Your task to perform on an android device: Go to ESPN.com Image 0: 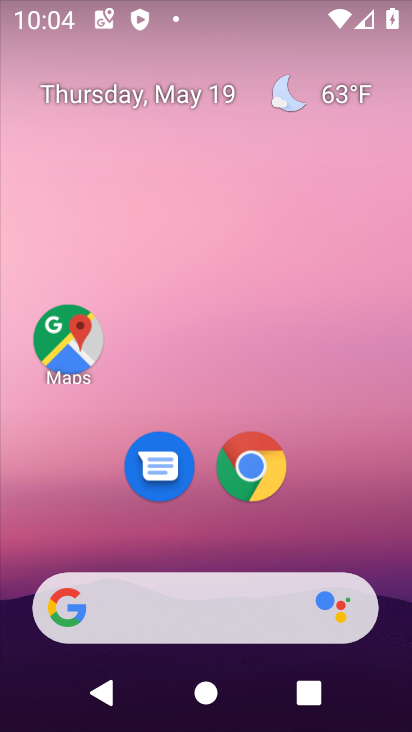
Step 0: drag from (394, 609) to (316, 49)
Your task to perform on an android device: Go to ESPN.com Image 1: 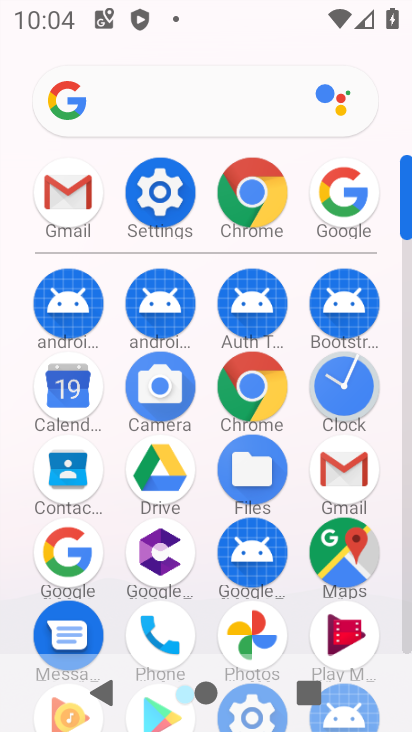
Step 1: click (56, 539)
Your task to perform on an android device: Go to ESPN.com Image 2: 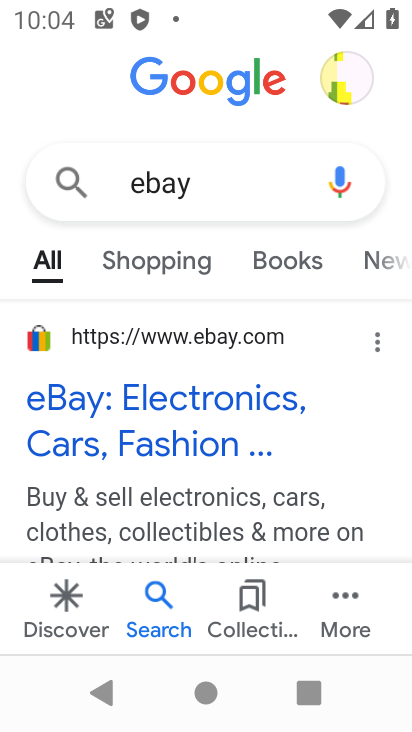
Step 2: press back button
Your task to perform on an android device: Go to ESPN.com Image 3: 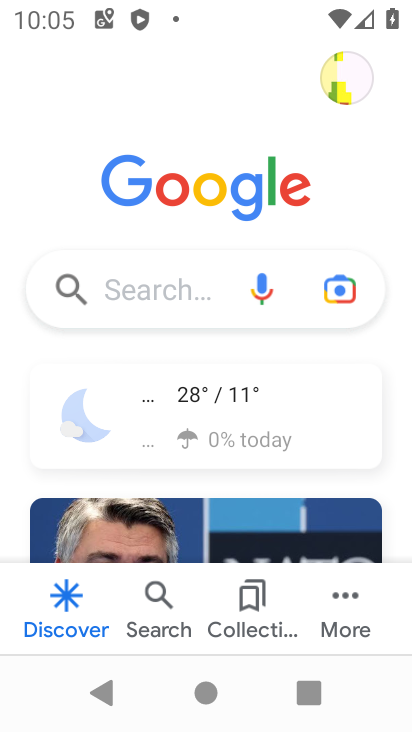
Step 3: click (157, 294)
Your task to perform on an android device: Go to ESPN.com Image 4: 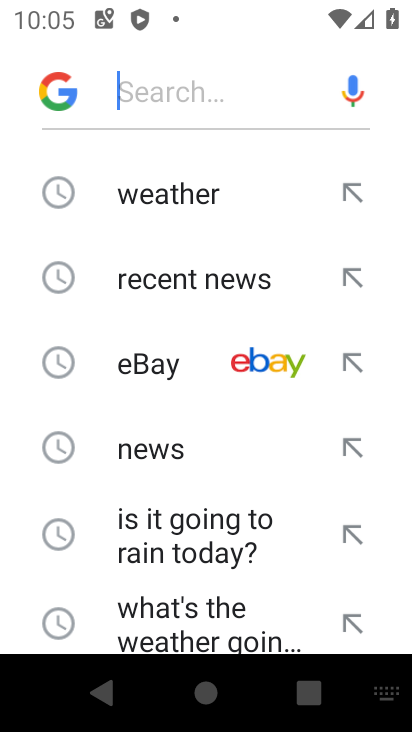
Step 4: drag from (195, 500) to (240, 112)
Your task to perform on an android device: Go to ESPN.com Image 5: 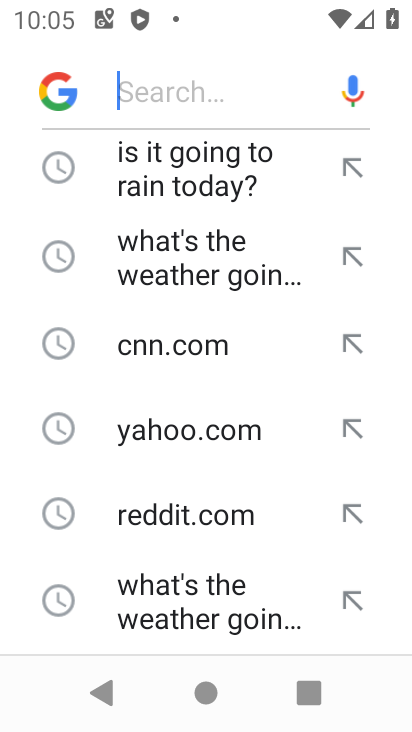
Step 5: drag from (183, 522) to (218, 171)
Your task to perform on an android device: Go to ESPN.com Image 6: 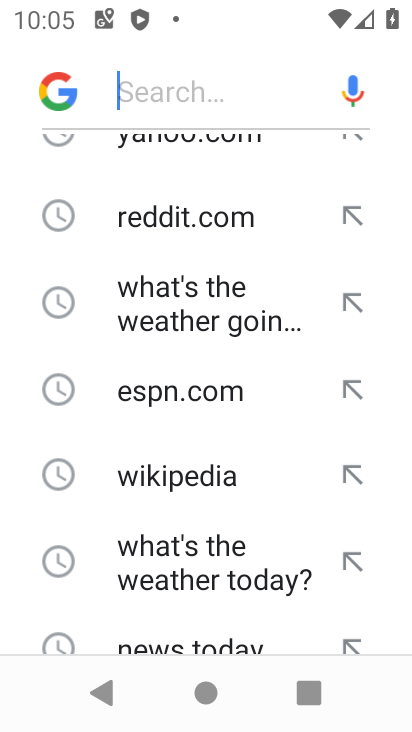
Step 6: click (193, 397)
Your task to perform on an android device: Go to ESPN.com Image 7: 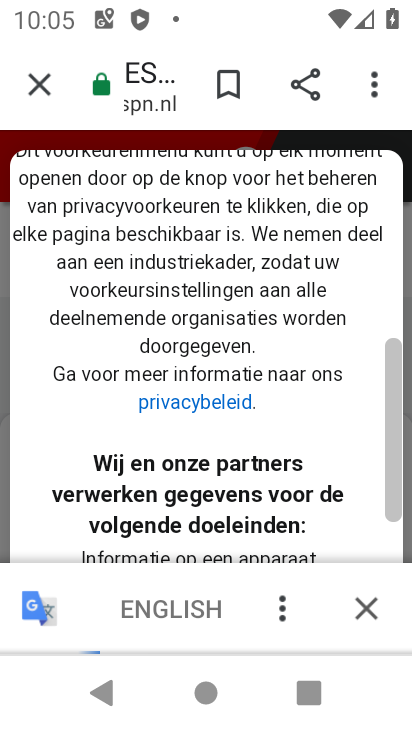
Step 7: task complete